Your task to perform on an android device: Open Wikipedia Image 0: 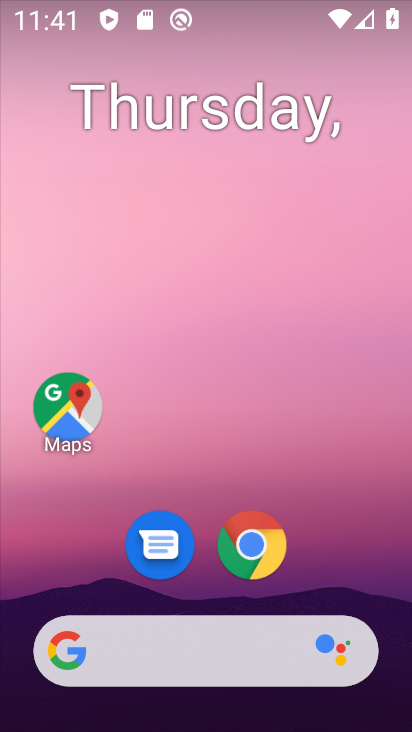
Step 0: click (258, 546)
Your task to perform on an android device: Open Wikipedia Image 1: 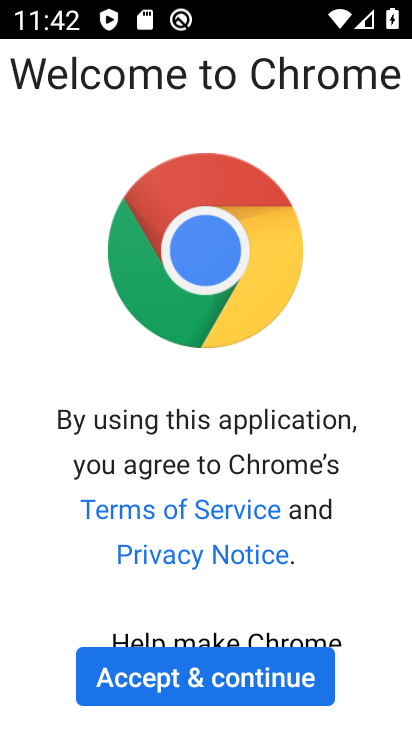
Step 1: click (213, 657)
Your task to perform on an android device: Open Wikipedia Image 2: 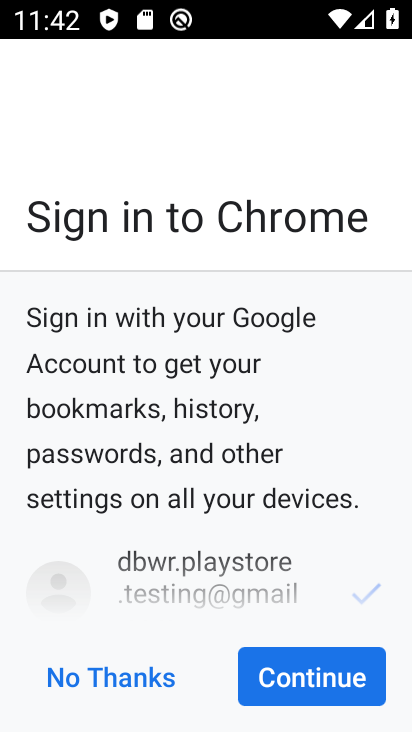
Step 2: click (273, 667)
Your task to perform on an android device: Open Wikipedia Image 3: 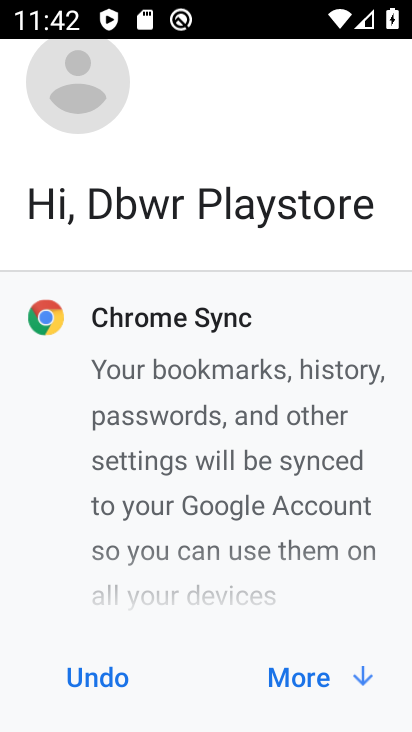
Step 3: click (321, 685)
Your task to perform on an android device: Open Wikipedia Image 4: 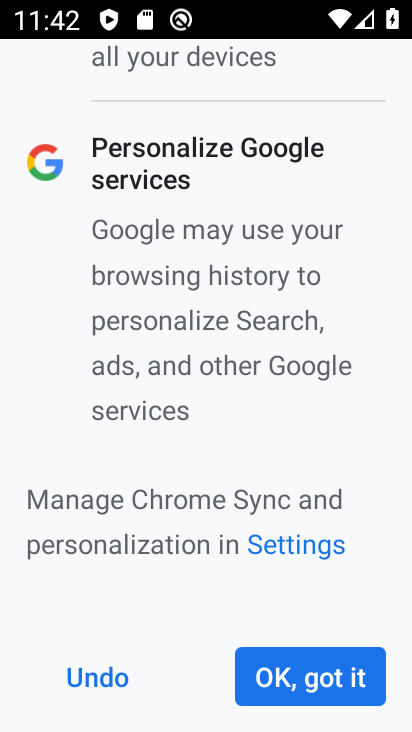
Step 4: click (302, 665)
Your task to perform on an android device: Open Wikipedia Image 5: 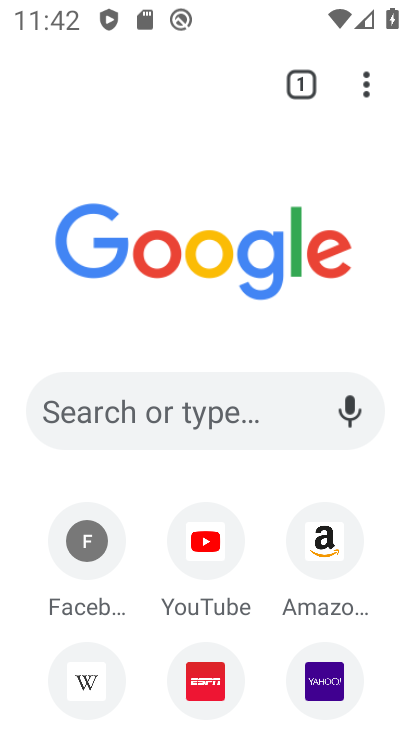
Step 5: drag from (269, 634) to (289, 387)
Your task to perform on an android device: Open Wikipedia Image 6: 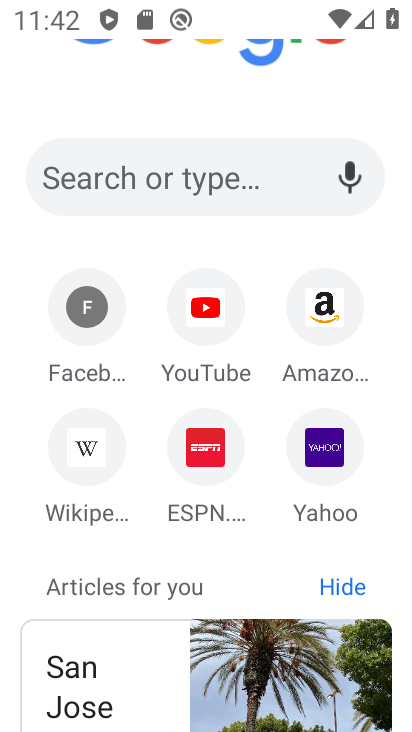
Step 6: click (73, 460)
Your task to perform on an android device: Open Wikipedia Image 7: 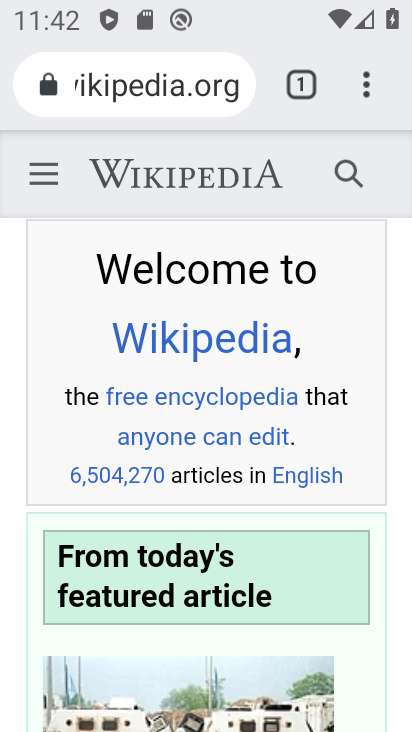
Step 7: task complete